Your task to perform on an android device: search for starred emails in the gmail app Image 0: 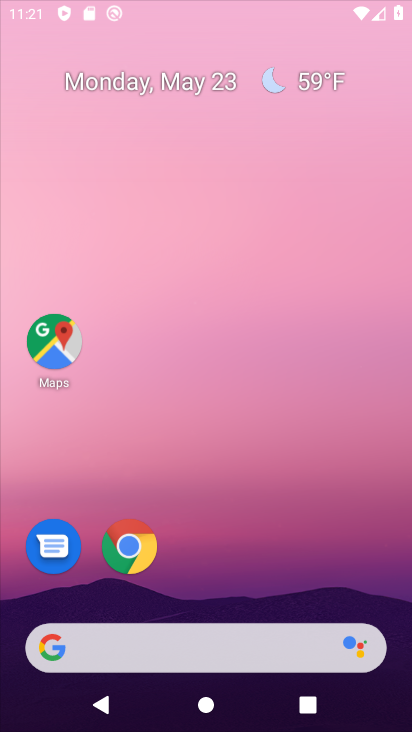
Step 0: click (236, 39)
Your task to perform on an android device: search for starred emails in the gmail app Image 1: 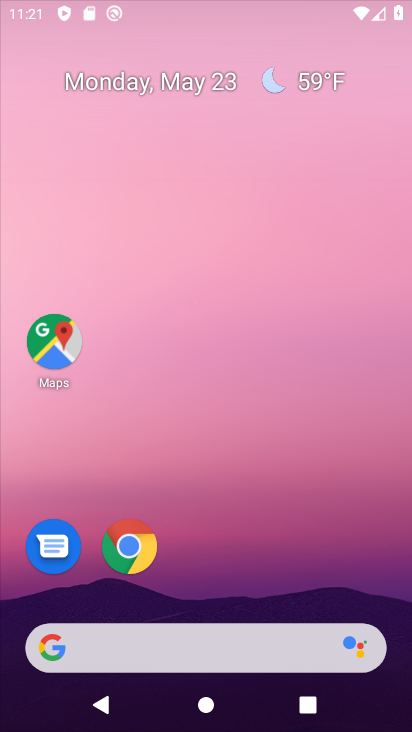
Step 1: drag from (214, 532) to (317, 61)
Your task to perform on an android device: search for starred emails in the gmail app Image 2: 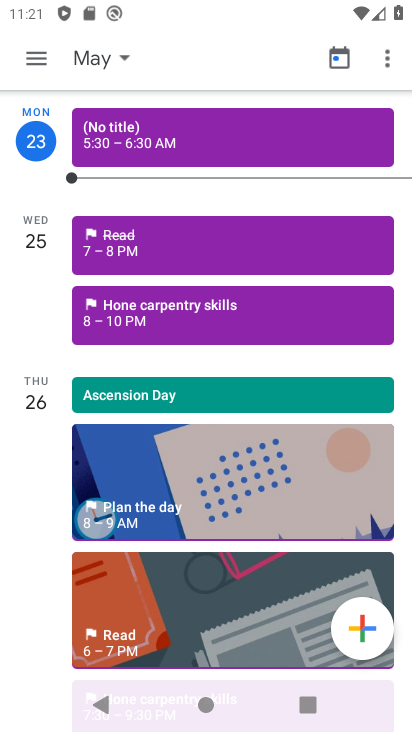
Step 2: drag from (218, 564) to (278, 251)
Your task to perform on an android device: search for starred emails in the gmail app Image 3: 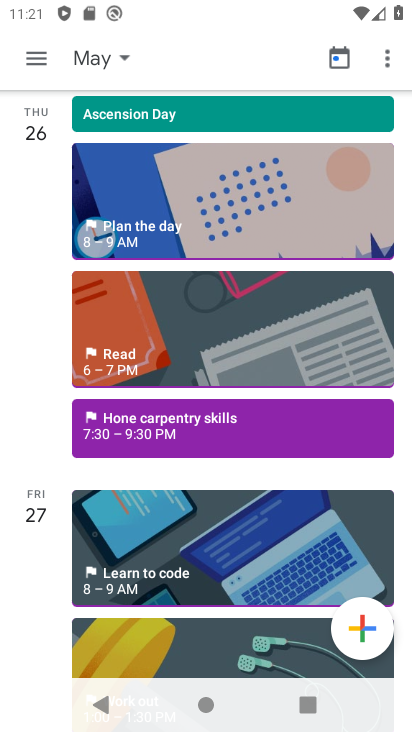
Step 3: drag from (238, 440) to (256, 328)
Your task to perform on an android device: search for starred emails in the gmail app Image 4: 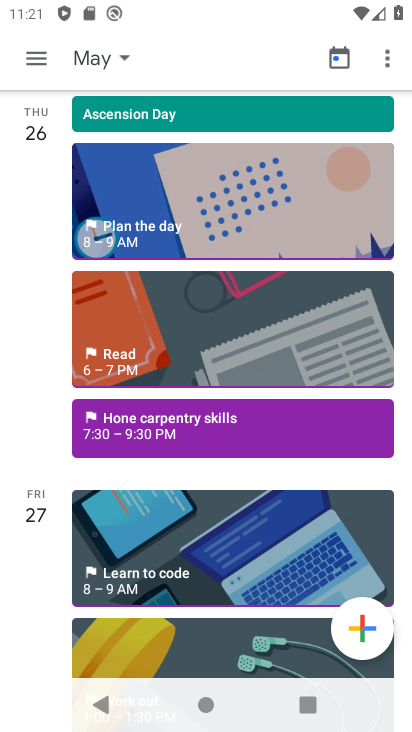
Step 4: drag from (266, 596) to (341, 280)
Your task to perform on an android device: search for starred emails in the gmail app Image 5: 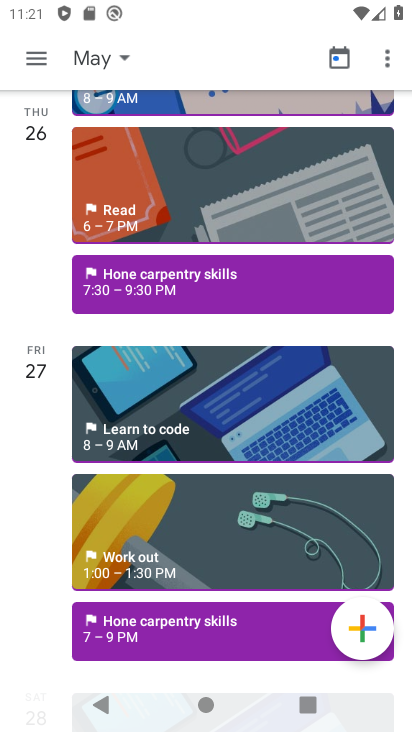
Step 5: drag from (186, 574) to (273, 232)
Your task to perform on an android device: search for starred emails in the gmail app Image 6: 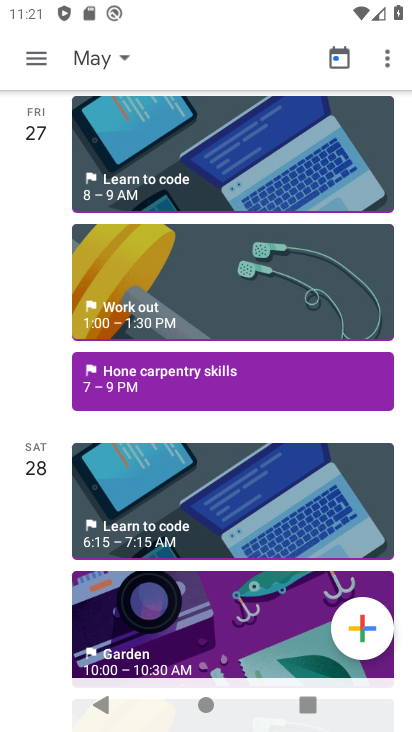
Step 6: drag from (280, 152) to (274, 565)
Your task to perform on an android device: search for starred emails in the gmail app Image 7: 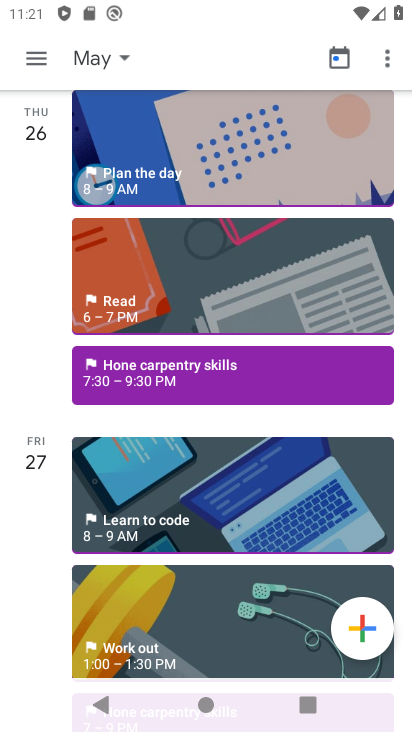
Step 7: drag from (271, 145) to (296, 517)
Your task to perform on an android device: search for starred emails in the gmail app Image 8: 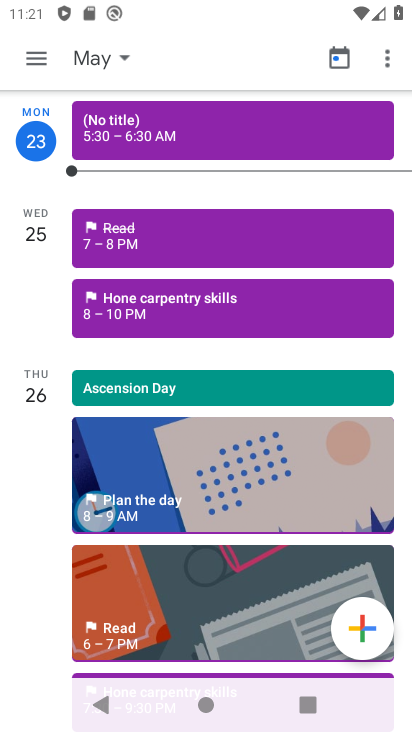
Step 8: drag from (290, 228) to (336, 700)
Your task to perform on an android device: search for starred emails in the gmail app Image 9: 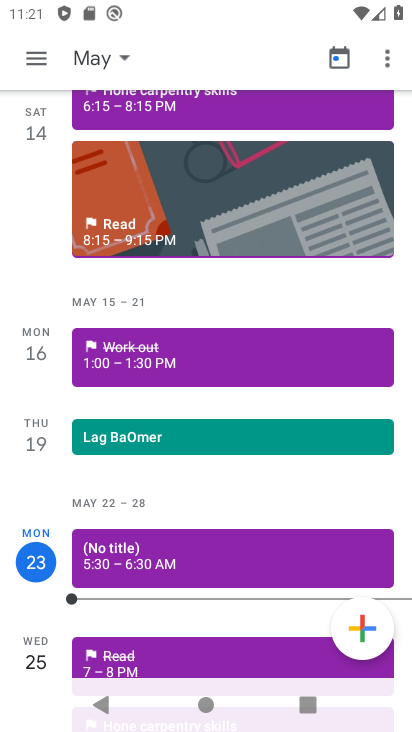
Step 9: drag from (228, 651) to (283, 165)
Your task to perform on an android device: search for starred emails in the gmail app Image 10: 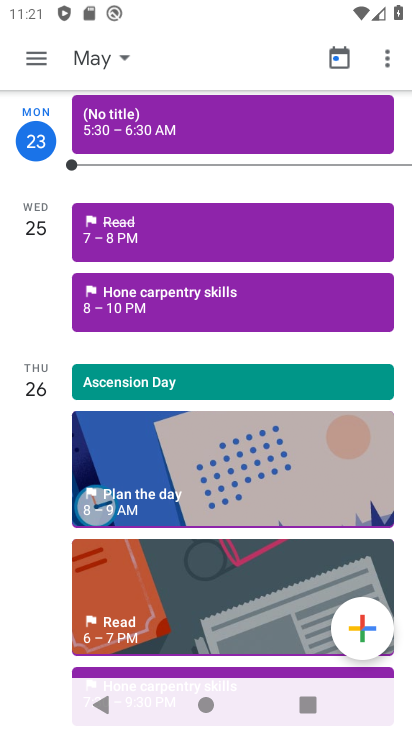
Step 10: drag from (244, 467) to (300, 275)
Your task to perform on an android device: search for starred emails in the gmail app Image 11: 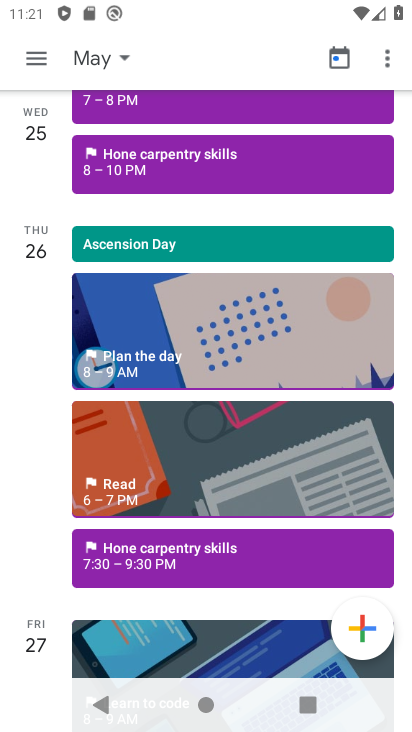
Step 11: drag from (223, 247) to (262, 654)
Your task to perform on an android device: search for starred emails in the gmail app Image 12: 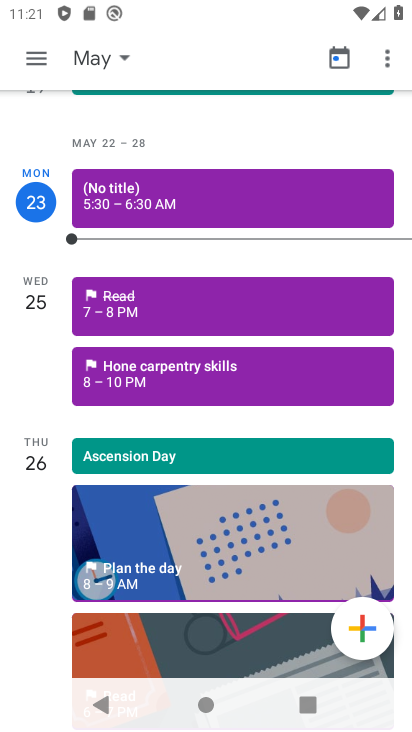
Step 12: click (48, 56)
Your task to perform on an android device: search for starred emails in the gmail app Image 13: 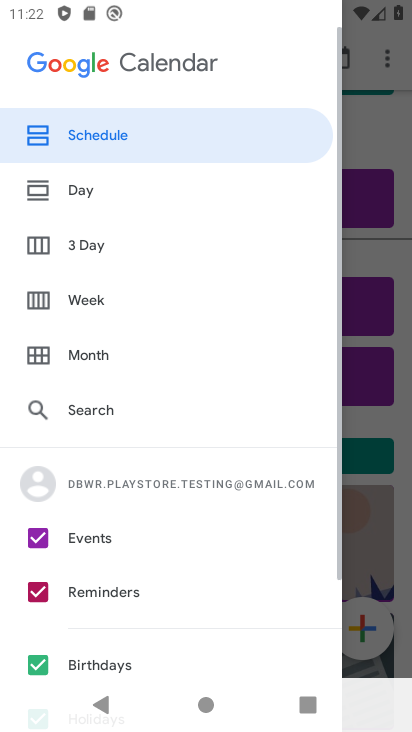
Step 13: drag from (215, 476) to (275, 131)
Your task to perform on an android device: search for starred emails in the gmail app Image 14: 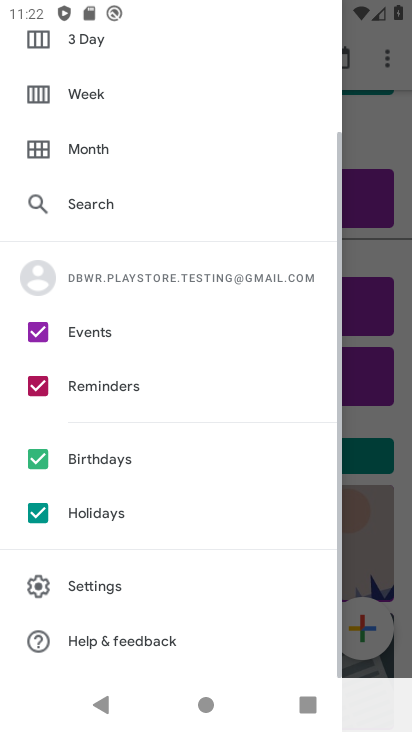
Step 14: drag from (181, 172) to (182, 589)
Your task to perform on an android device: search for starred emails in the gmail app Image 15: 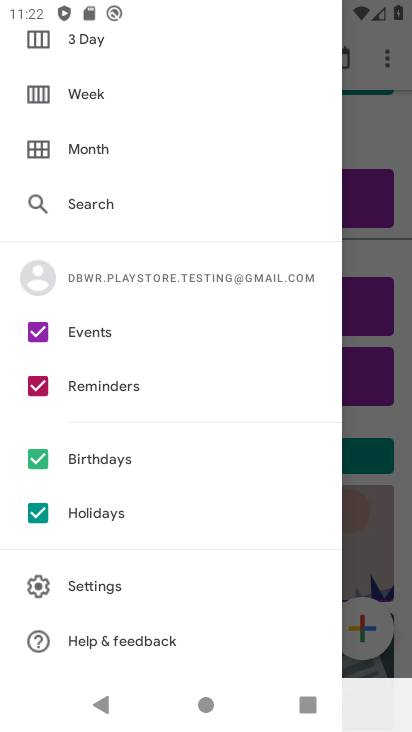
Step 15: drag from (202, 591) to (258, 128)
Your task to perform on an android device: search for starred emails in the gmail app Image 16: 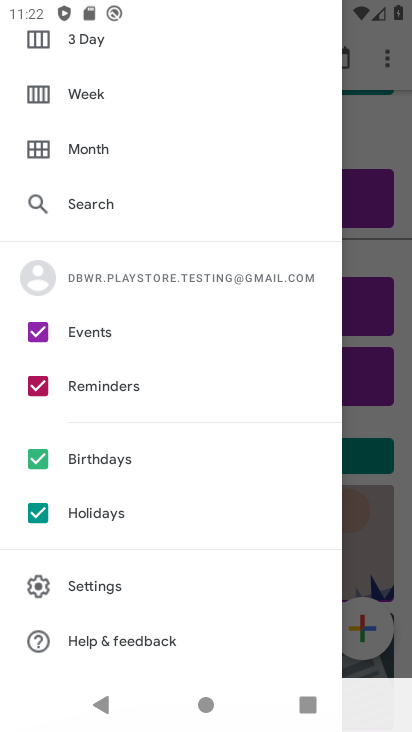
Step 16: drag from (258, 79) to (231, 664)
Your task to perform on an android device: search for starred emails in the gmail app Image 17: 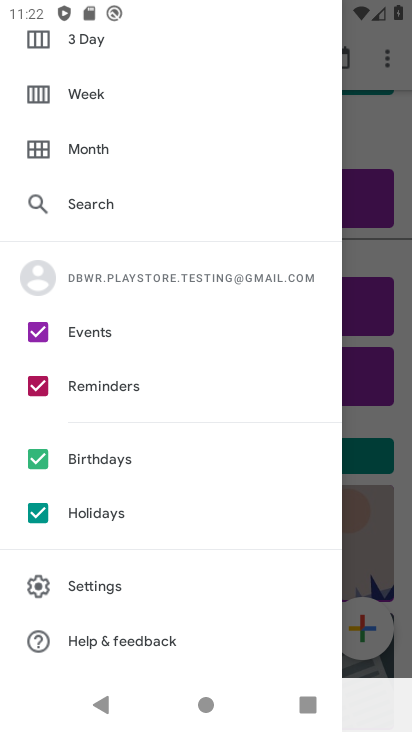
Step 17: drag from (100, 198) to (142, 606)
Your task to perform on an android device: search for starred emails in the gmail app Image 18: 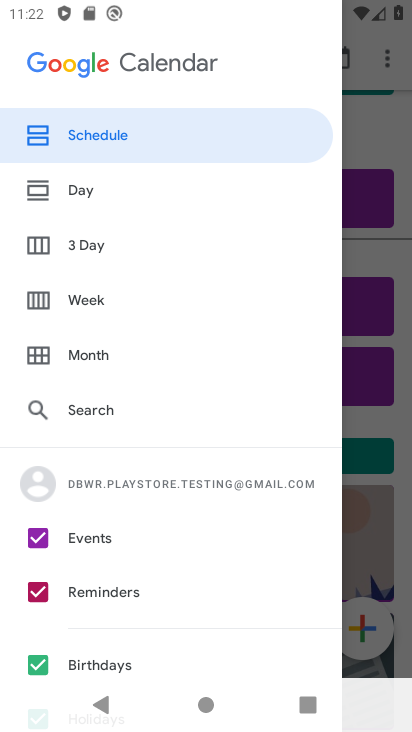
Step 18: drag from (140, 348) to (181, 702)
Your task to perform on an android device: search for starred emails in the gmail app Image 19: 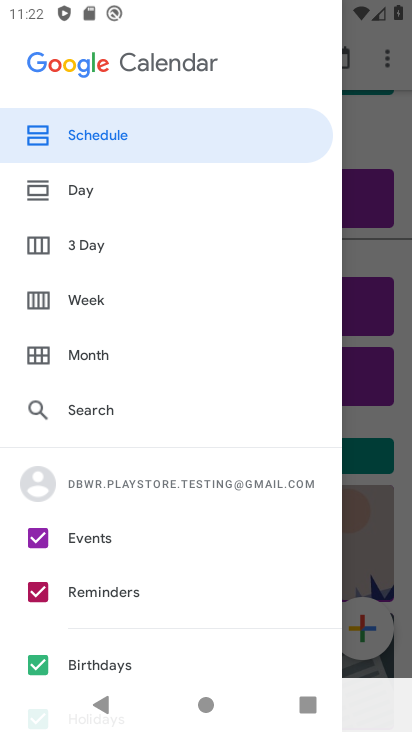
Step 19: drag from (163, 228) to (174, 606)
Your task to perform on an android device: search for starred emails in the gmail app Image 20: 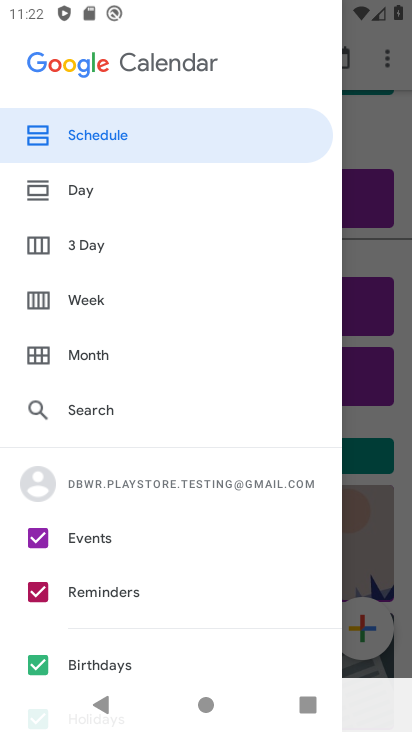
Step 20: drag from (188, 595) to (231, 270)
Your task to perform on an android device: search for starred emails in the gmail app Image 21: 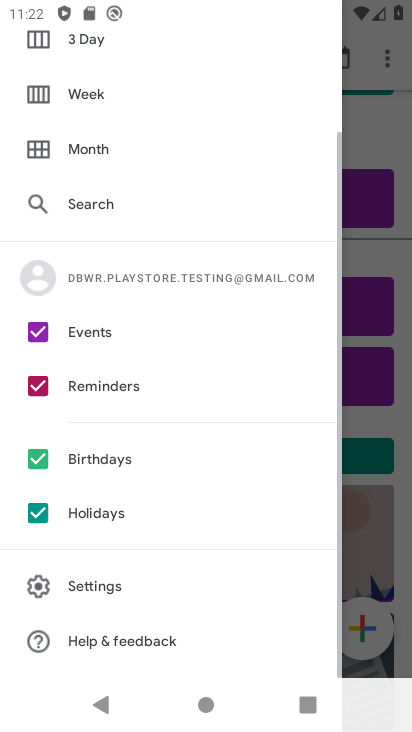
Step 21: drag from (231, 209) to (284, 688)
Your task to perform on an android device: search for starred emails in the gmail app Image 22: 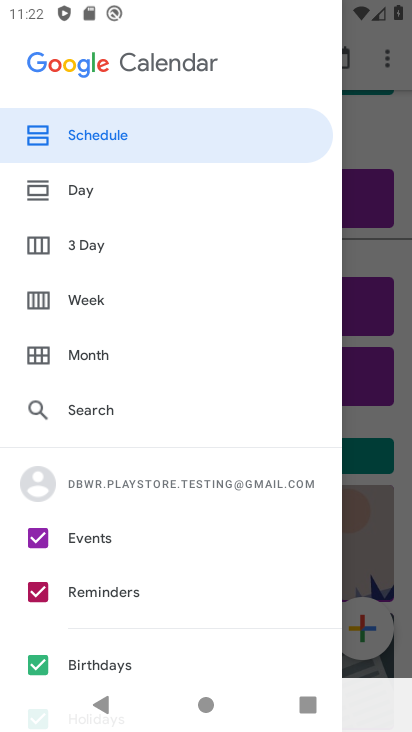
Step 22: drag from (216, 462) to (258, 48)
Your task to perform on an android device: search for starred emails in the gmail app Image 23: 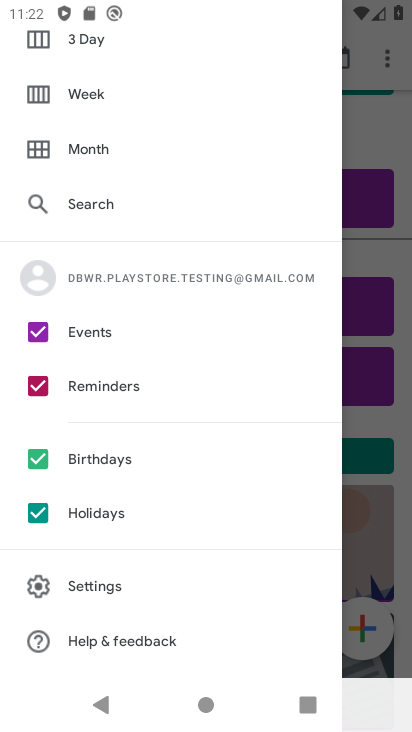
Step 23: press home button
Your task to perform on an android device: search for starred emails in the gmail app Image 24: 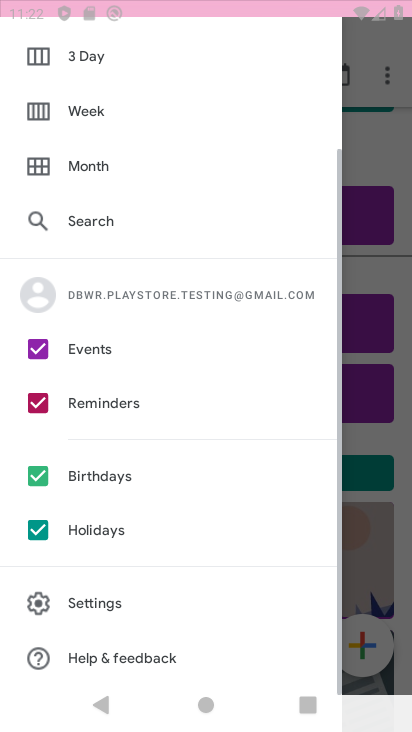
Step 24: drag from (290, 611) to (302, 102)
Your task to perform on an android device: search for starred emails in the gmail app Image 25: 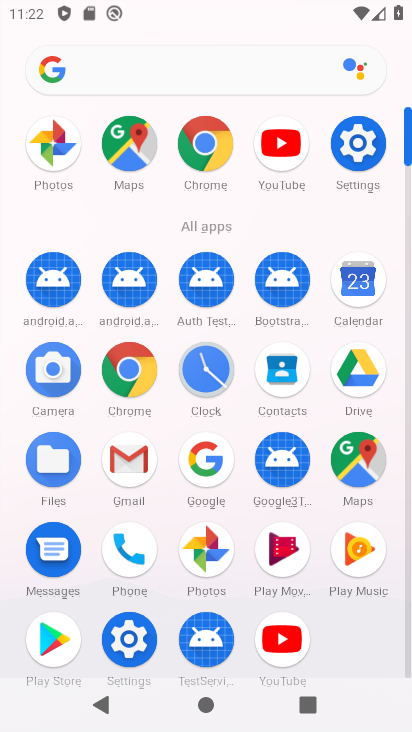
Step 25: click (121, 451)
Your task to perform on an android device: search for starred emails in the gmail app Image 26: 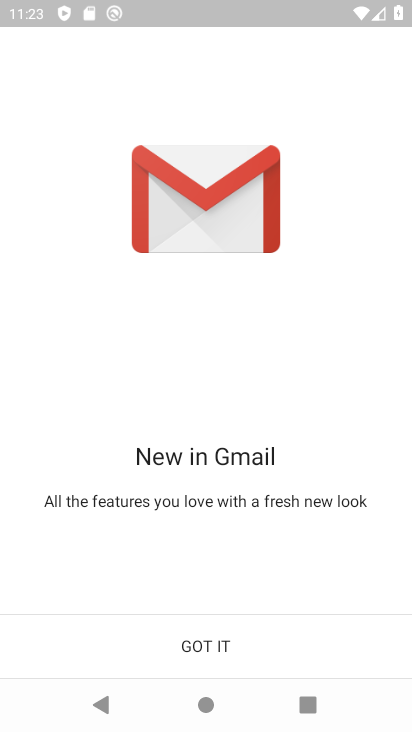
Step 26: click (191, 654)
Your task to perform on an android device: search for starred emails in the gmail app Image 27: 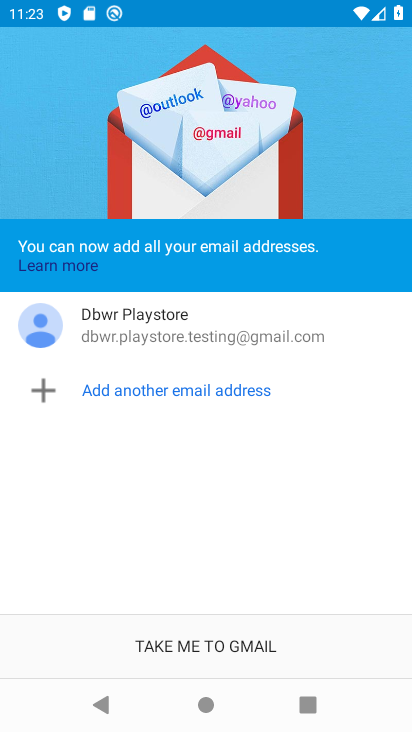
Step 27: drag from (173, 536) to (238, 148)
Your task to perform on an android device: search for starred emails in the gmail app Image 28: 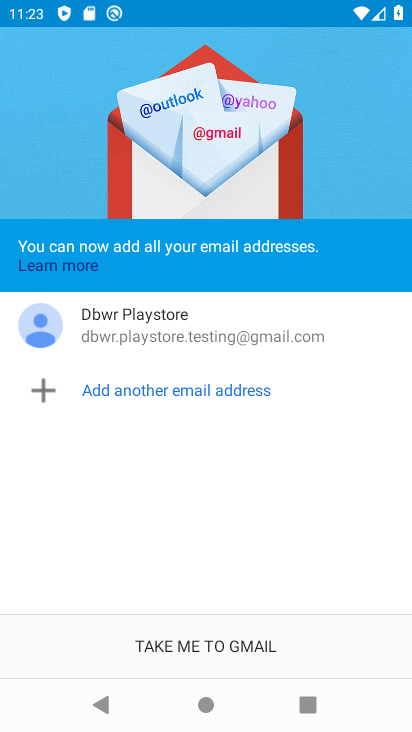
Step 28: click (222, 643)
Your task to perform on an android device: search for starred emails in the gmail app Image 29: 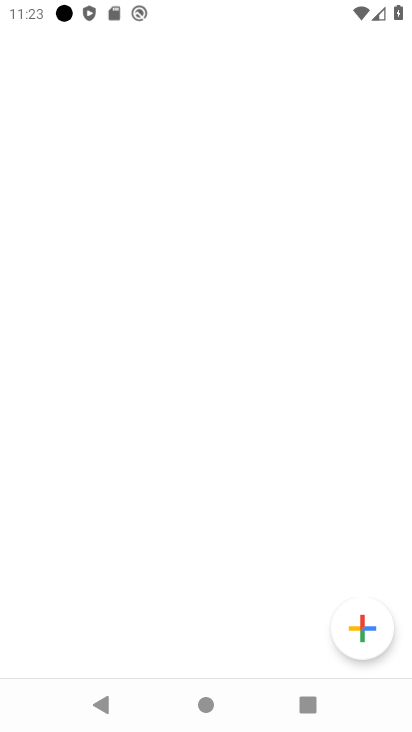
Step 29: drag from (222, 539) to (262, 165)
Your task to perform on an android device: search for starred emails in the gmail app Image 30: 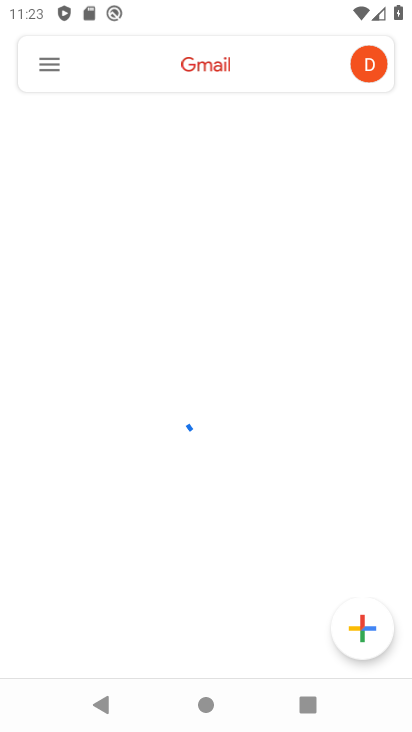
Step 30: drag from (239, 442) to (277, 173)
Your task to perform on an android device: search for starred emails in the gmail app Image 31: 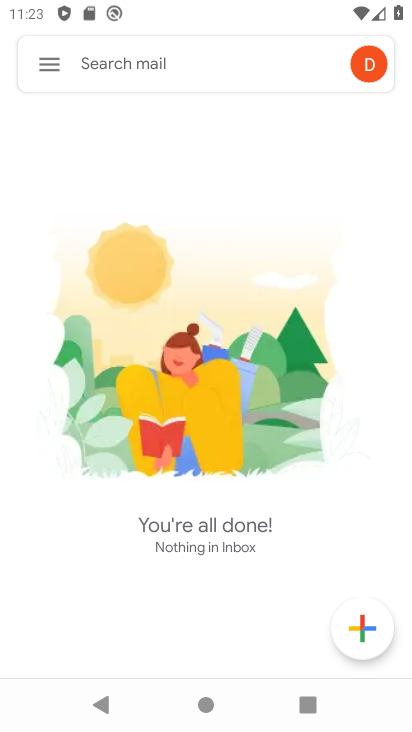
Step 31: drag from (310, 419) to (398, 122)
Your task to perform on an android device: search for starred emails in the gmail app Image 32: 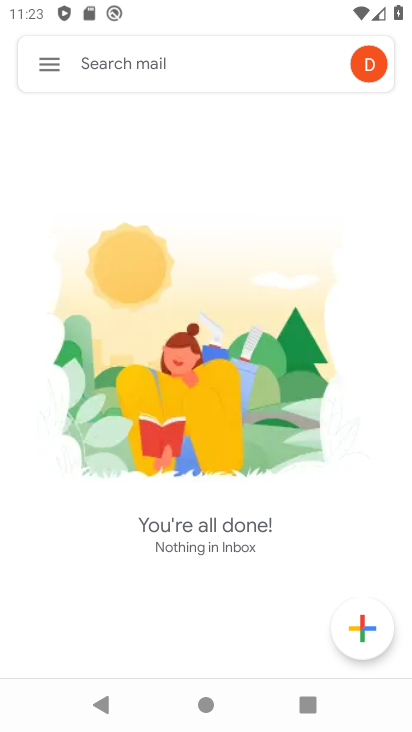
Step 32: drag from (210, 546) to (251, 95)
Your task to perform on an android device: search for starred emails in the gmail app Image 33: 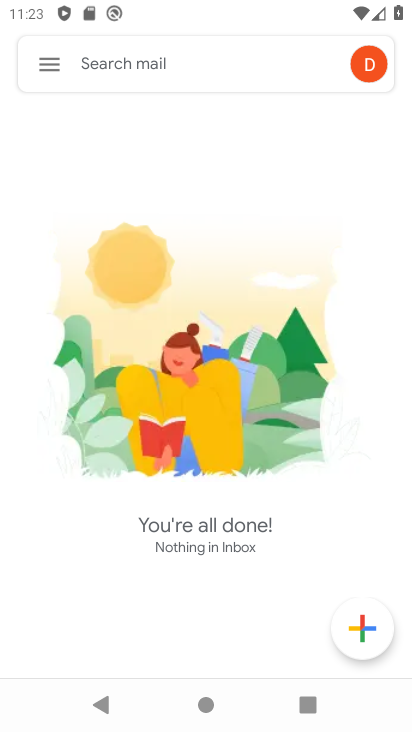
Step 33: drag from (162, 578) to (187, 277)
Your task to perform on an android device: search for starred emails in the gmail app Image 34: 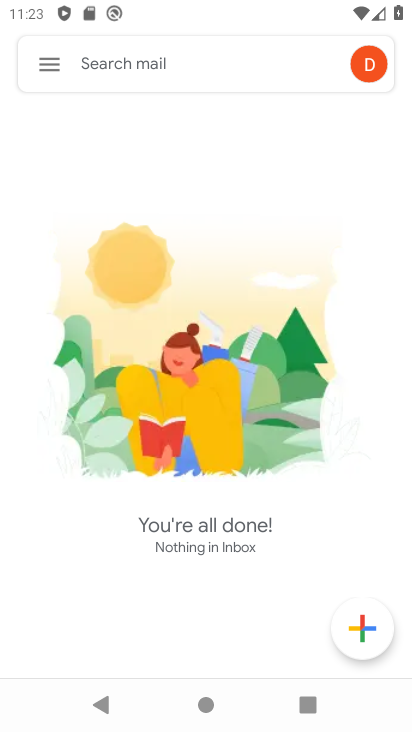
Step 34: click (65, 71)
Your task to perform on an android device: search for starred emails in the gmail app Image 35: 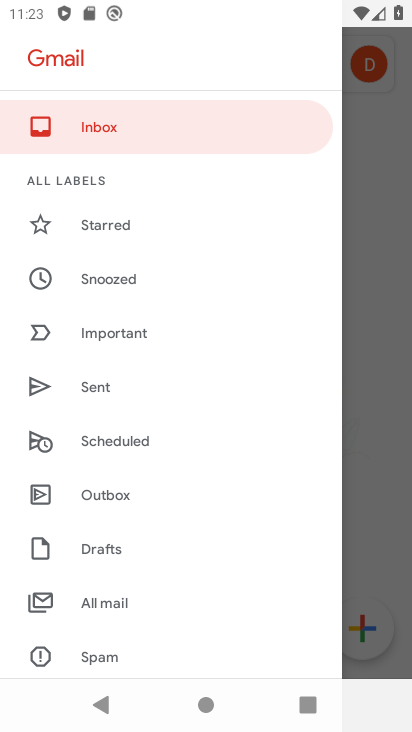
Step 35: drag from (159, 633) to (226, 107)
Your task to perform on an android device: search for starred emails in the gmail app Image 36: 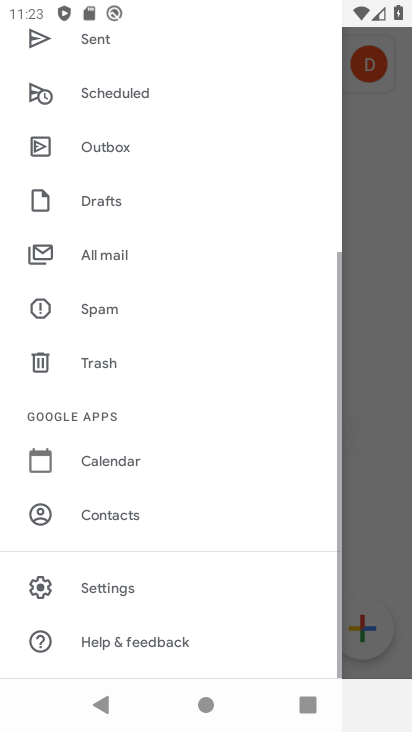
Step 36: drag from (226, 82) to (262, 686)
Your task to perform on an android device: search for starred emails in the gmail app Image 37: 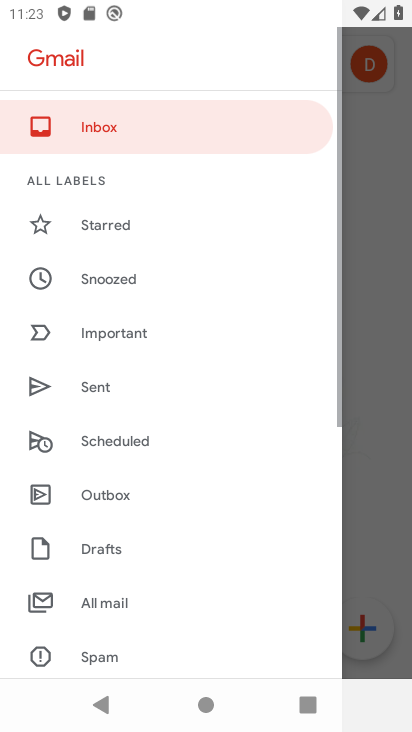
Step 37: click (133, 220)
Your task to perform on an android device: search for starred emails in the gmail app Image 38: 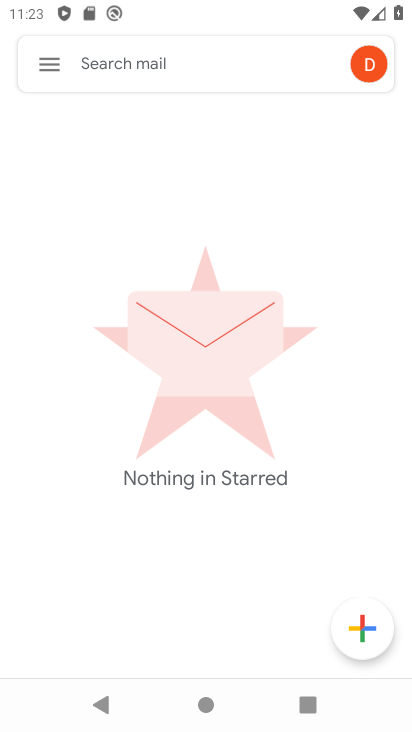
Step 38: task complete